Your task to perform on an android device: add a contact Image 0: 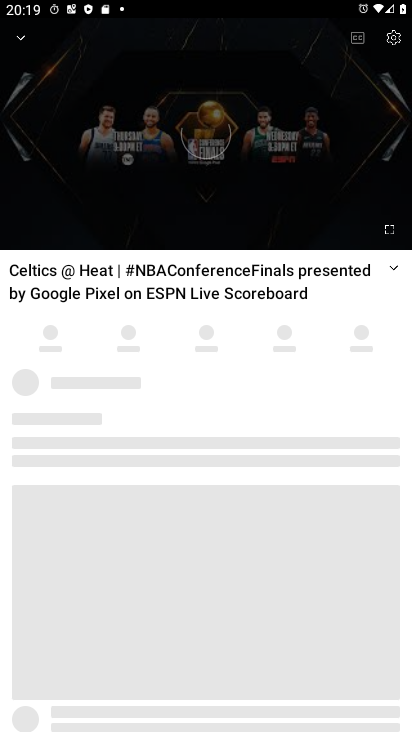
Step 0: click (245, 57)
Your task to perform on an android device: add a contact Image 1: 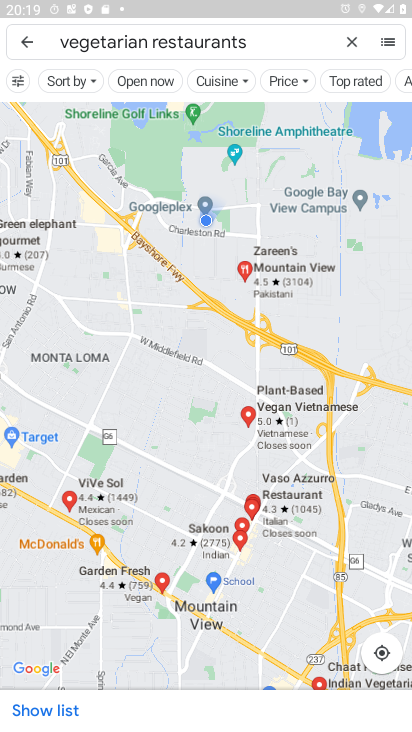
Step 1: press home button
Your task to perform on an android device: add a contact Image 2: 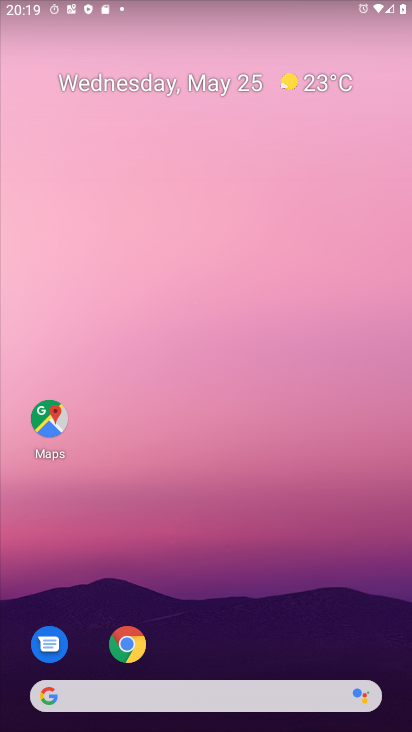
Step 2: drag from (248, 712) to (219, 14)
Your task to perform on an android device: add a contact Image 3: 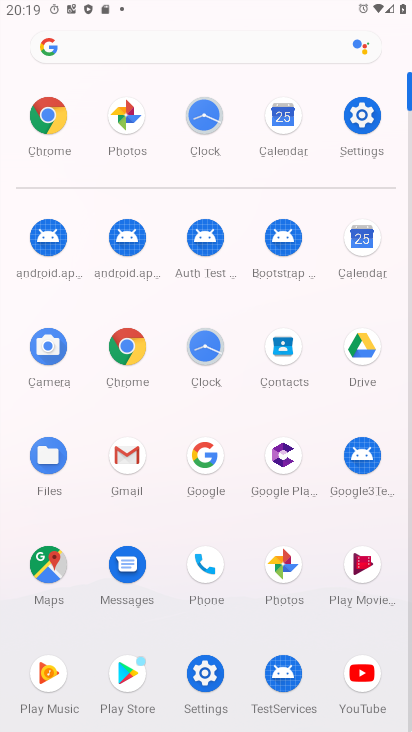
Step 3: click (211, 562)
Your task to perform on an android device: add a contact Image 4: 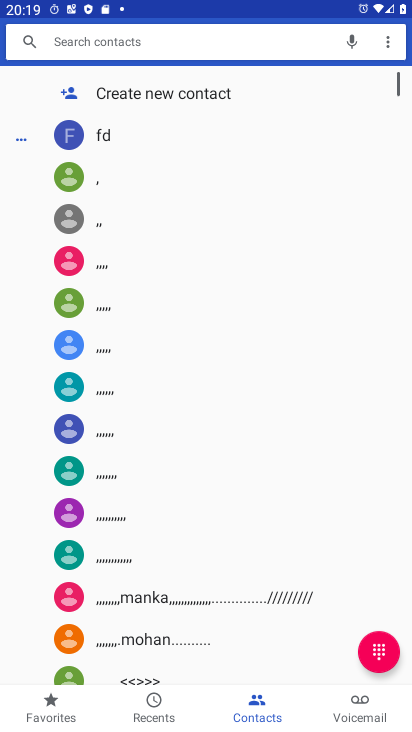
Step 4: click (154, 96)
Your task to perform on an android device: add a contact Image 5: 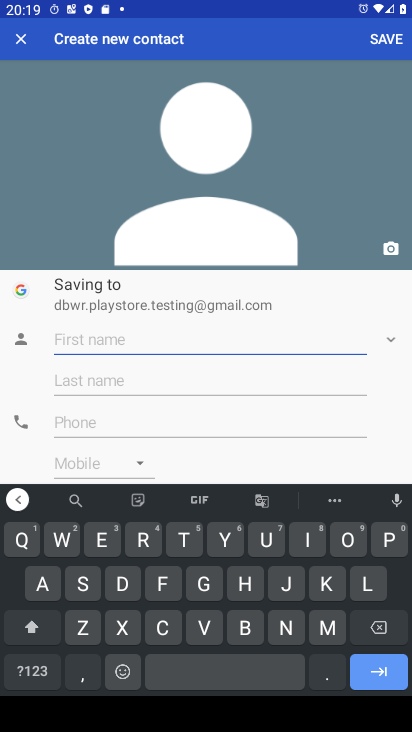
Step 5: click (175, 578)
Your task to perform on an android device: add a contact Image 6: 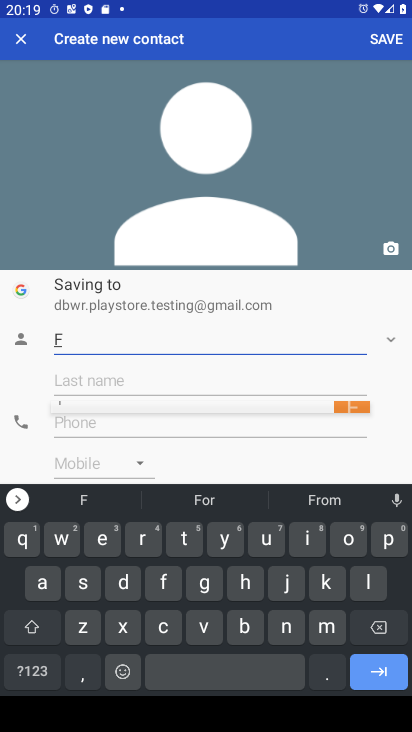
Step 6: click (43, 578)
Your task to perform on an android device: add a contact Image 7: 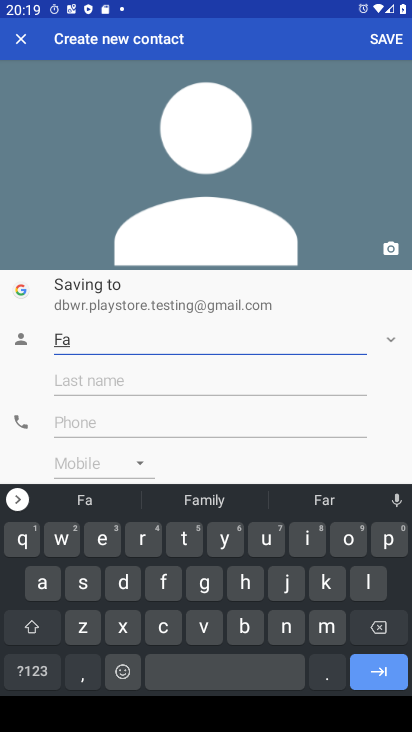
Step 7: click (119, 426)
Your task to perform on an android device: add a contact Image 8: 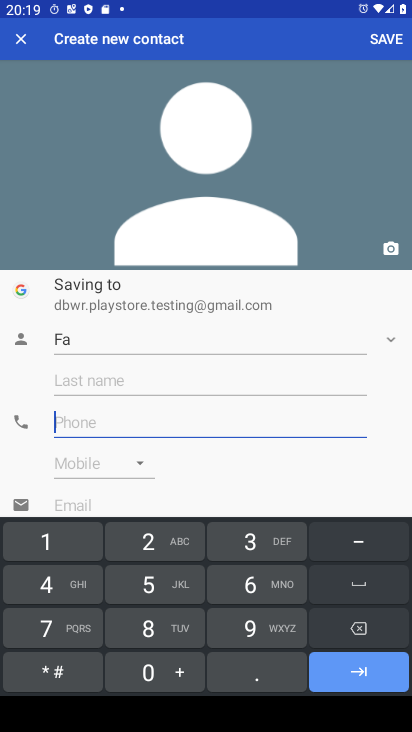
Step 8: click (203, 578)
Your task to perform on an android device: add a contact Image 9: 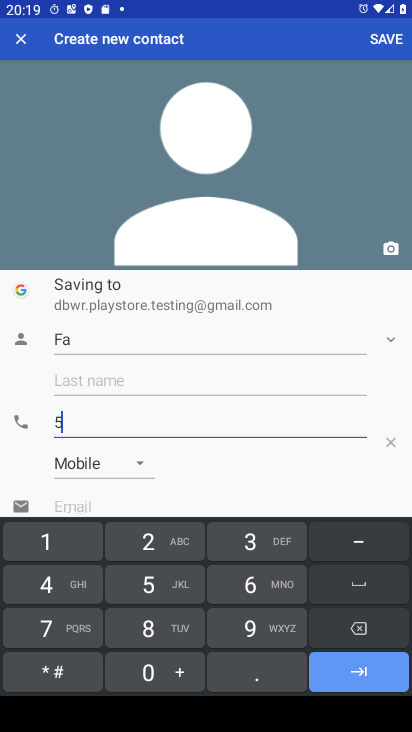
Step 9: click (149, 571)
Your task to perform on an android device: add a contact Image 10: 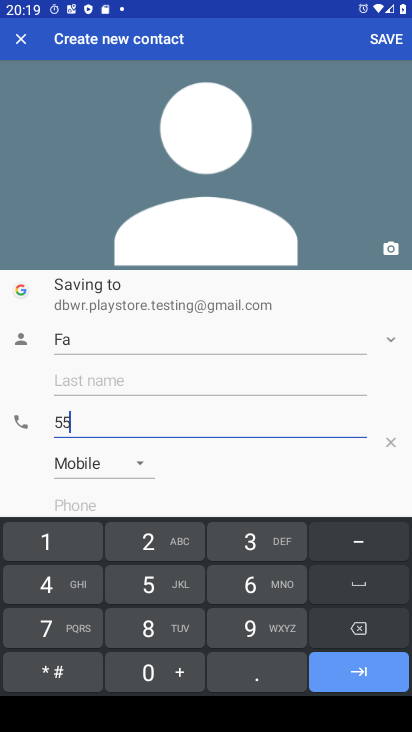
Step 10: click (60, 618)
Your task to perform on an android device: add a contact Image 11: 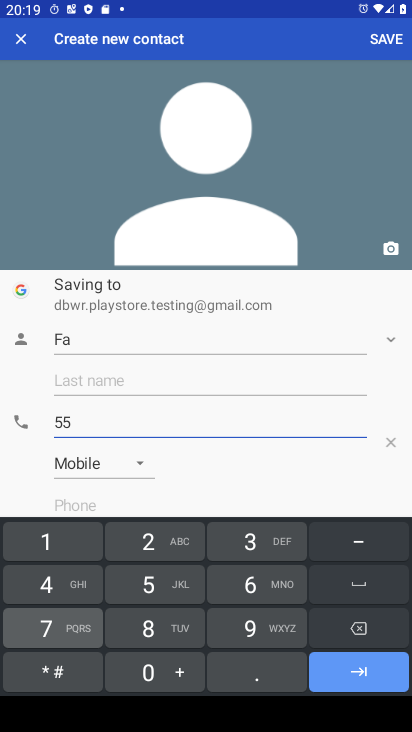
Step 11: click (165, 643)
Your task to perform on an android device: add a contact Image 12: 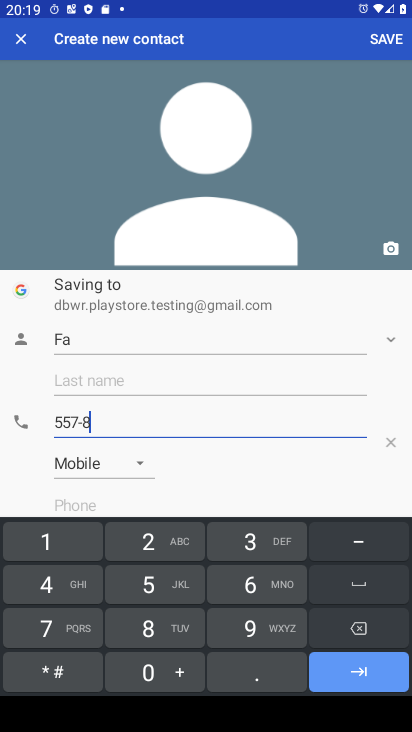
Step 12: click (223, 626)
Your task to perform on an android device: add a contact Image 13: 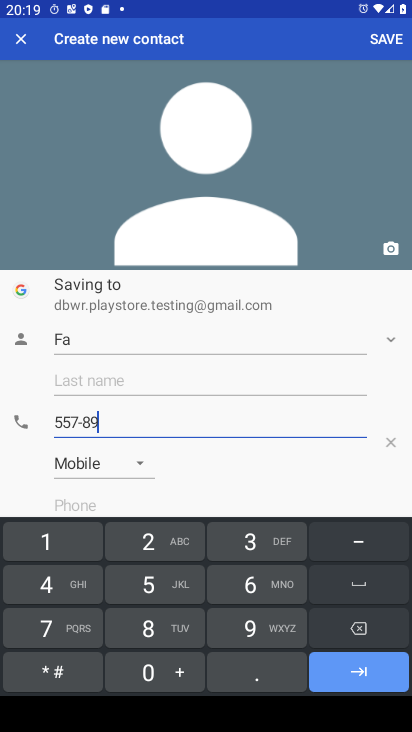
Step 13: click (125, 609)
Your task to perform on an android device: add a contact Image 14: 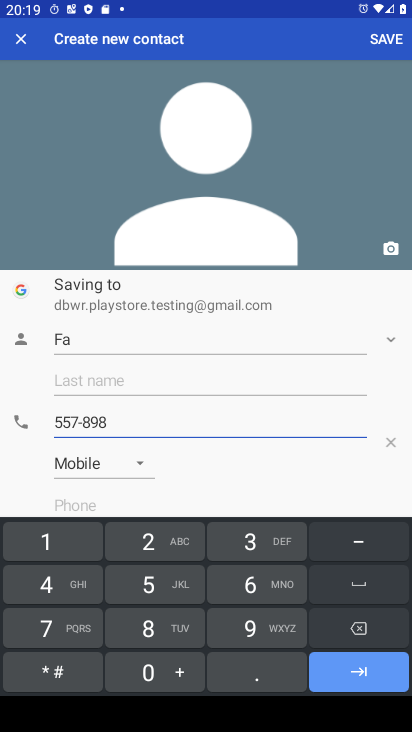
Step 14: click (125, 609)
Your task to perform on an android device: add a contact Image 15: 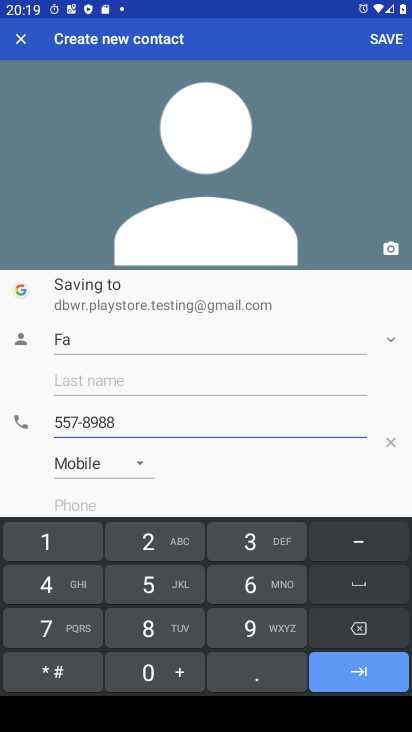
Step 15: click (373, 37)
Your task to perform on an android device: add a contact Image 16: 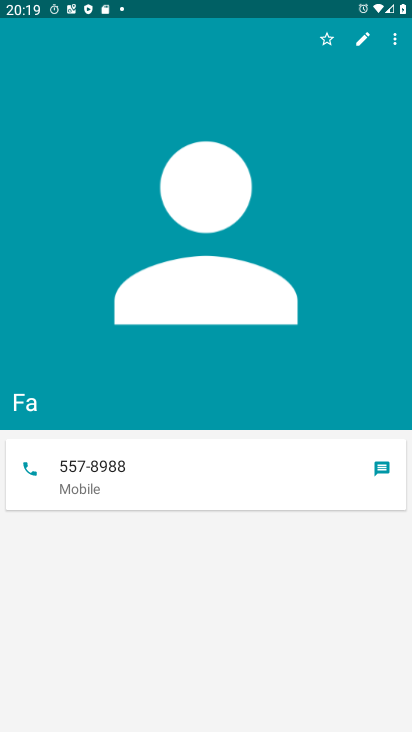
Step 16: task complete